Your task to perform on an android device: add a contact in the contacts app Image 0: 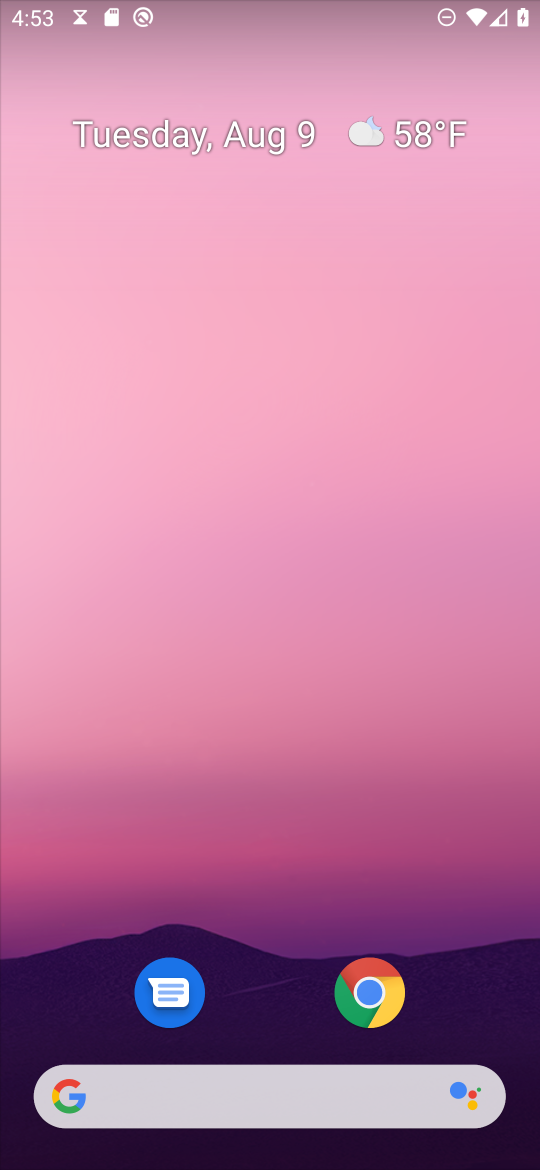
Step 0: click (171, 1103)
Your task to perform on an android device: add a contact in the contacts app Image 1: 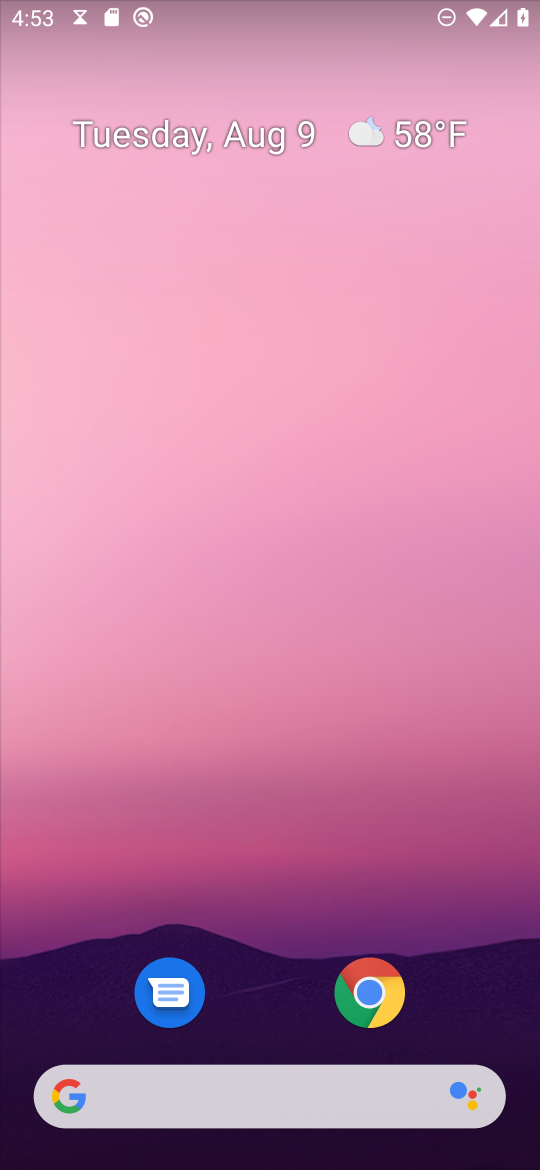
Step 1: drag from (171, 1103) to (277, 22)
Your task to perform on an android device: add a contact in the contacts app Image 2: 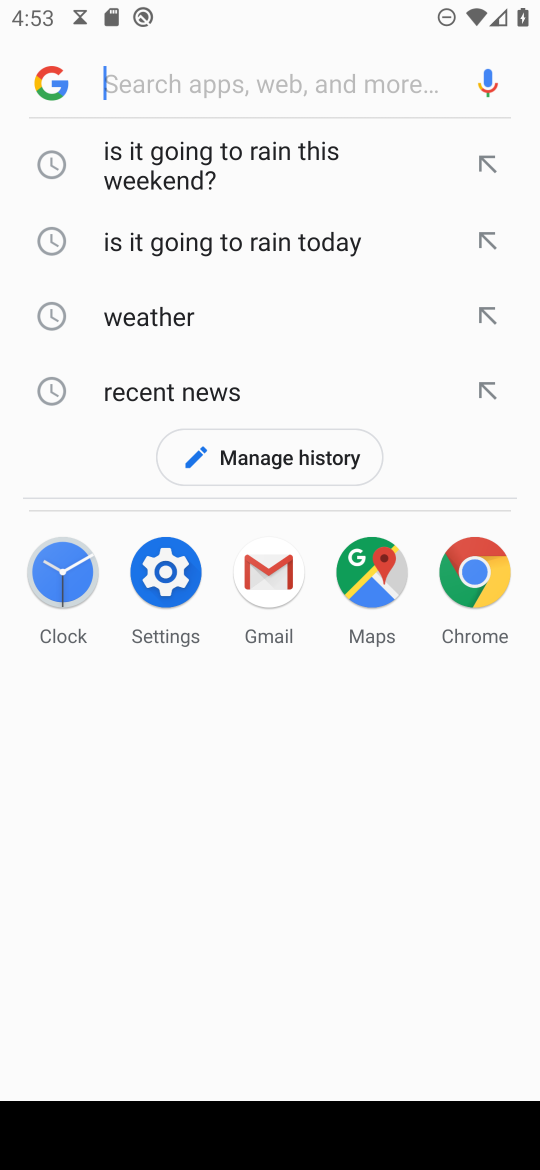
Step 2: press home button
Your task to perform on an android device: add a contact in the contacts app Image 3: 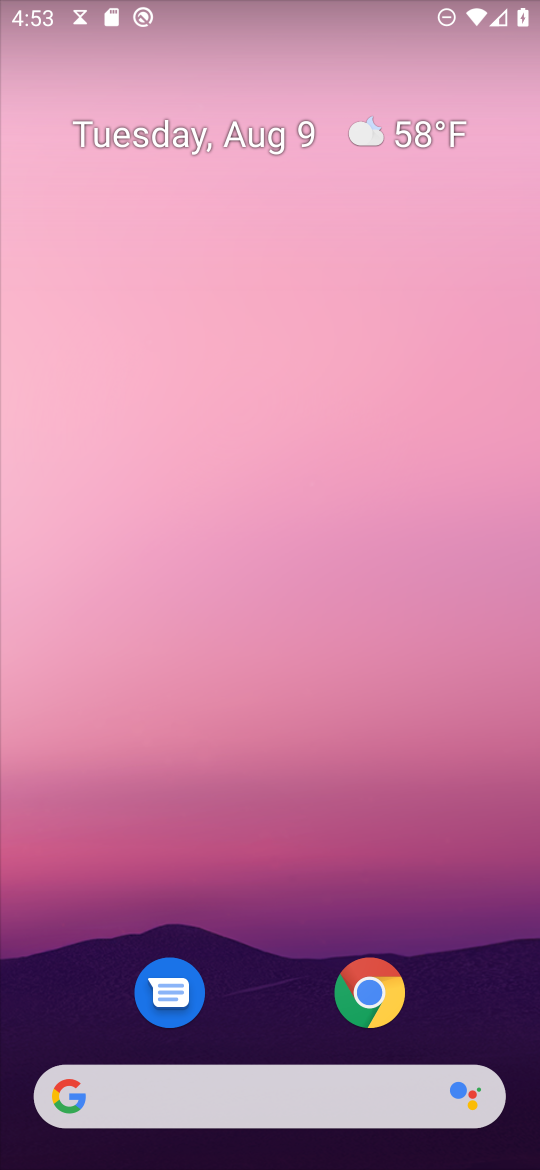
Step 3: drag from (204, 1094) to (392, 18)
Your task to perform on an android device: add a contact in the contacts app Image 4: 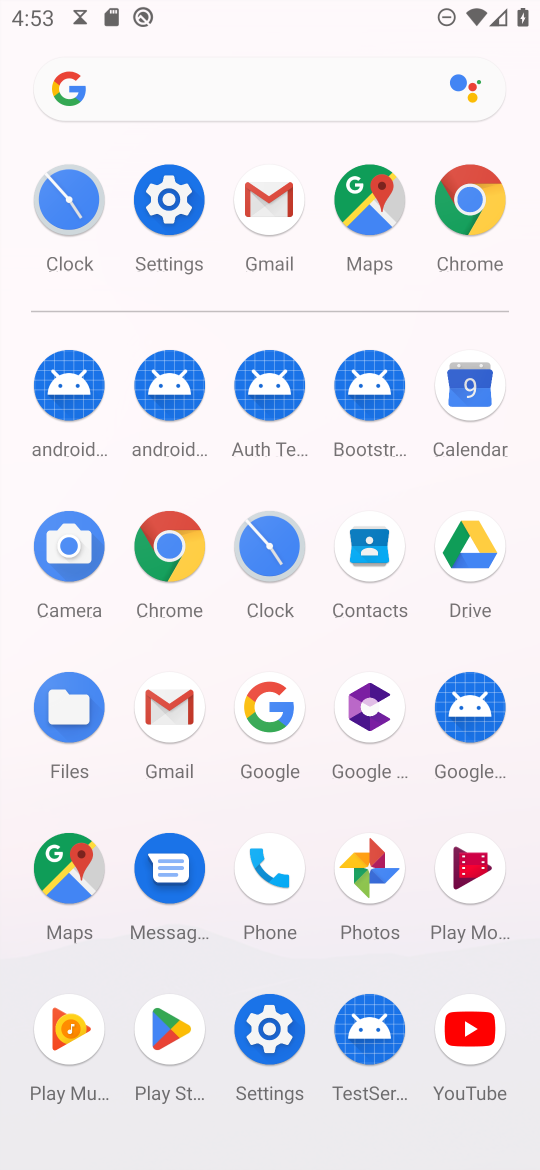
Step 4: click (387, 536)
Your task to perform on an android device: add a contact in the contacts app Image 5: 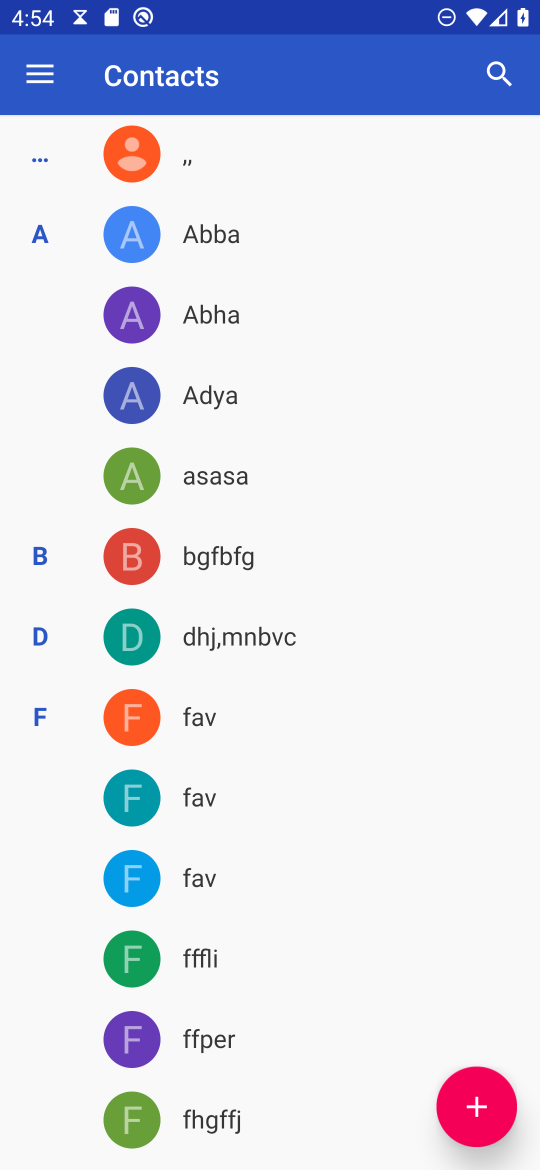
Step 5: click (470, 1091)
Your task to perform on an android device: add a contact in the contacts app Image 6: 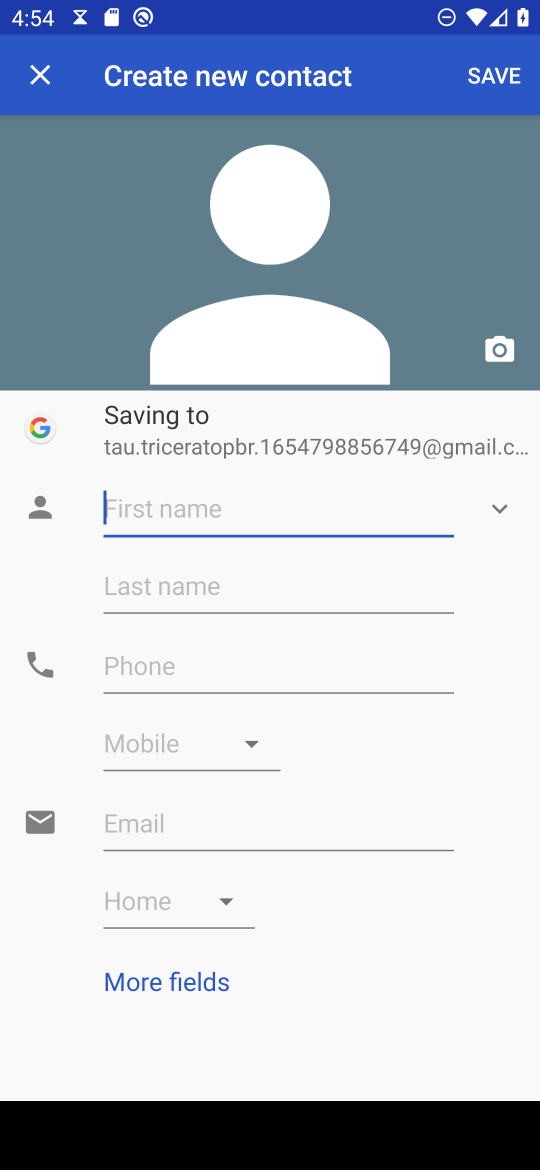
Step 6: type "hggfhdh"
Your task to perform on an android device: add a contact in the contacts app Image 7: 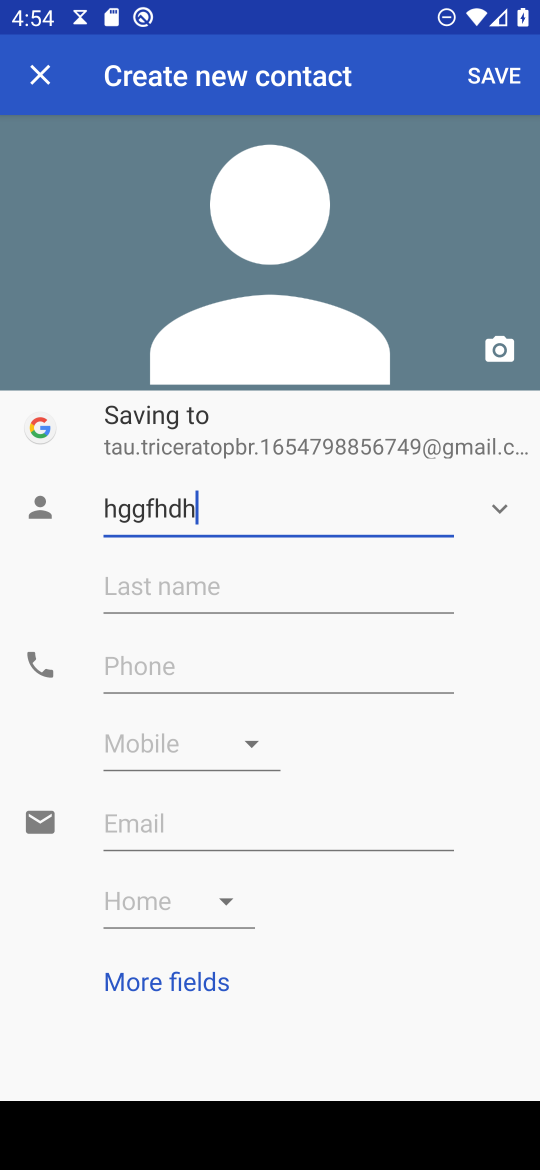
Step 7: click (246, 659)
Your task to perform on an android device: add a contact in the contacts app Image 8: 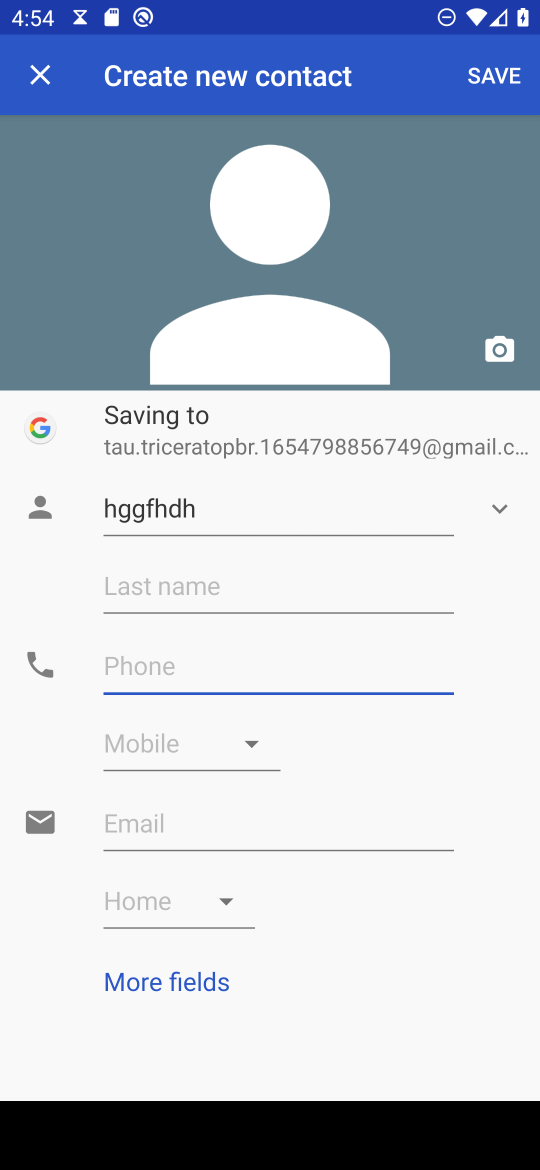
Step 8: type "9876554456"
Your task to perform on an android device: add a contact in the contacts app Image 9: 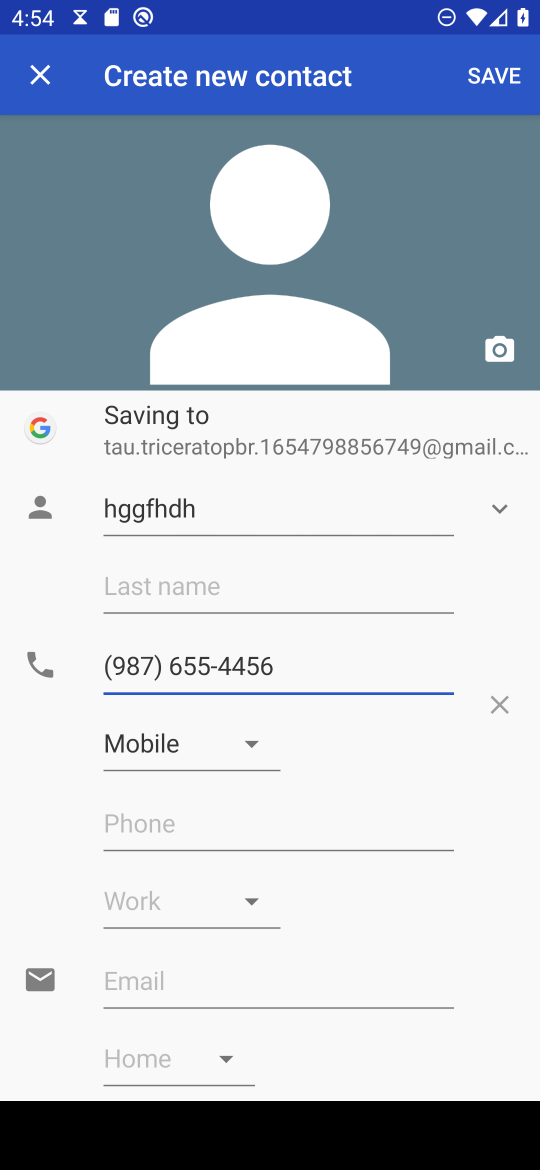
Step 9: click (501, 65)
Your task to perform on an android device: add a contact in the contacts app Image 10: 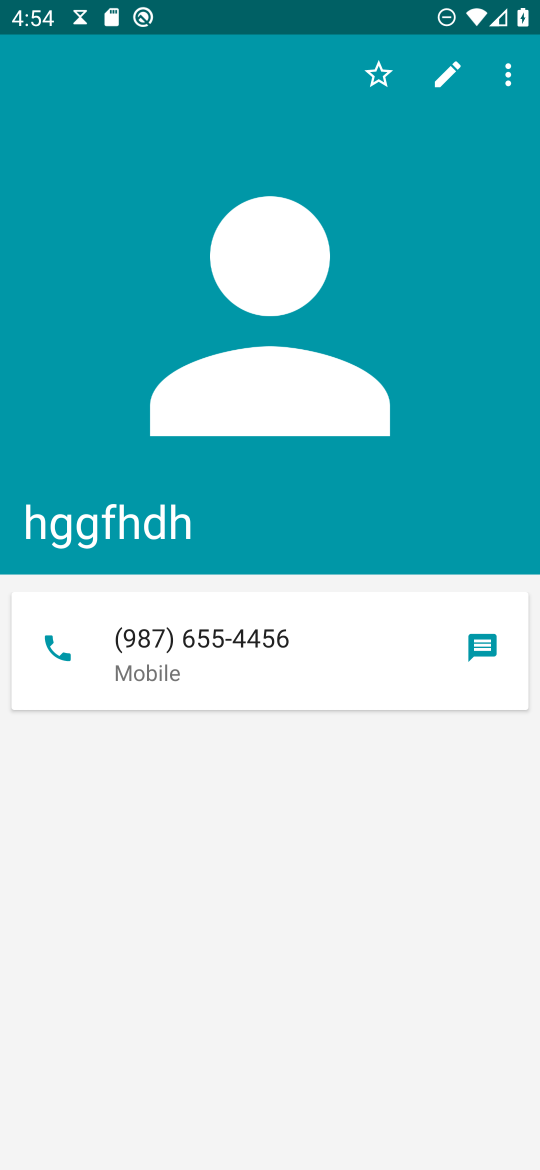
Step 10: task complete